Your task to perform on an android device: turn off location Image 0: 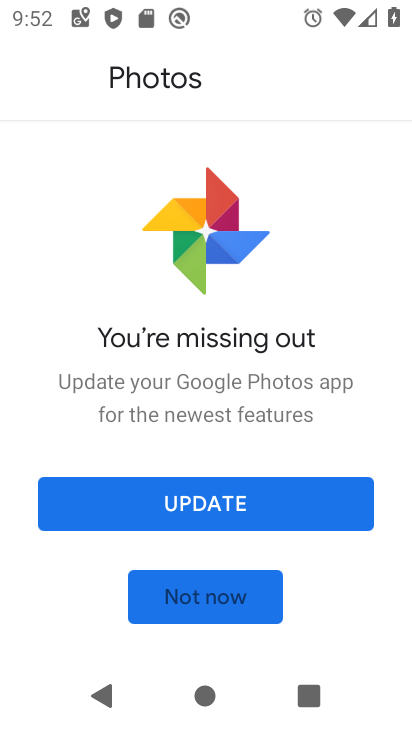
Step 0: press home button
Your task to perform on an android device: turn off location Image 1: 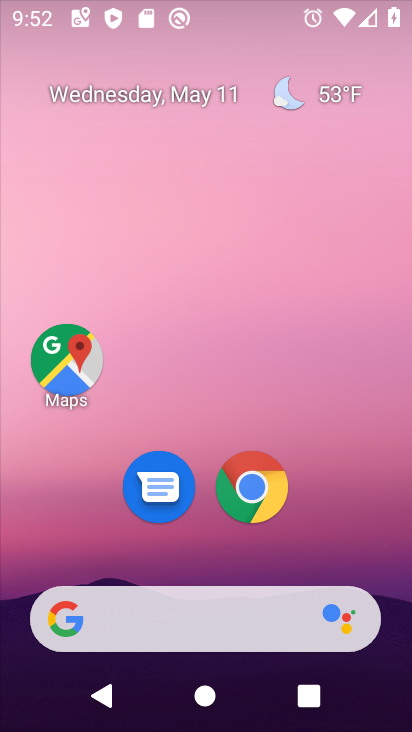
Step 1: drag from (202, 545) to (204, 202)
Your task to perform on an android device: turn off location Image 2: 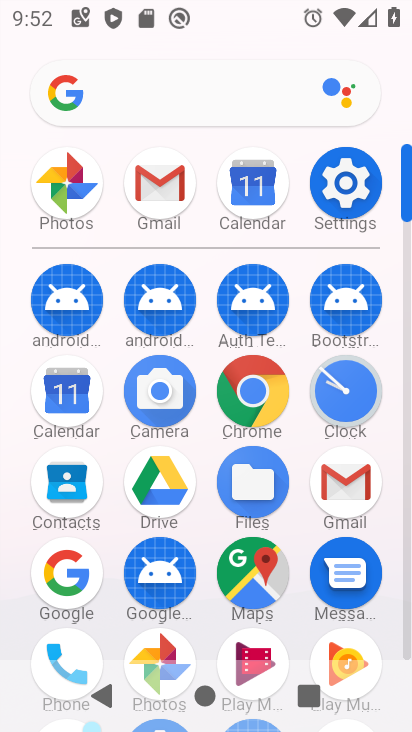
Step 2: click (329, 215)
Your task to perform on an android device: turn off location Image 3: 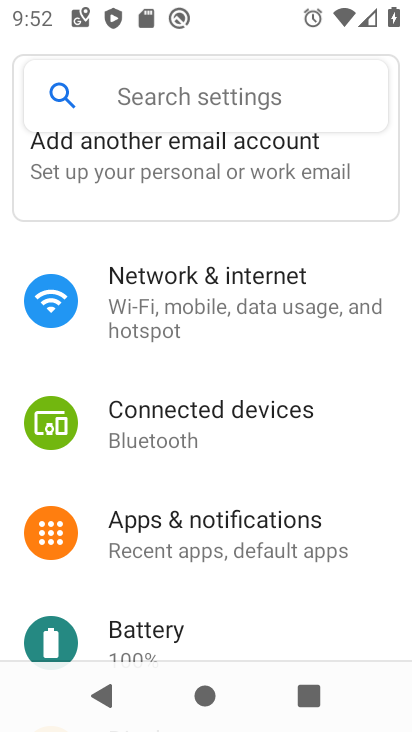
Step 3: drag from (228, 528) to (231, 283)
Your task to perform on an android device: turn off location Image 4: 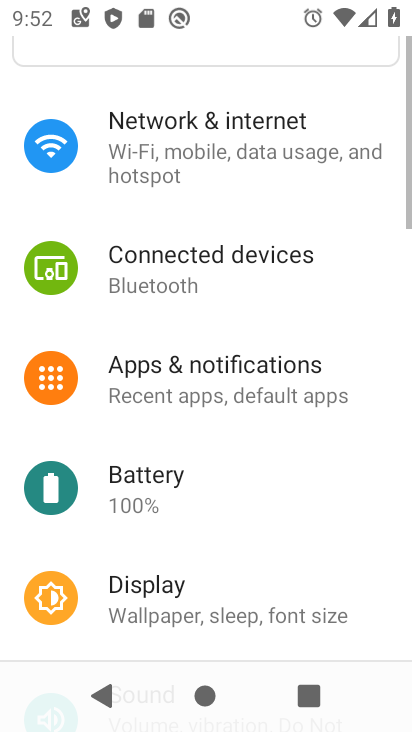
Step 4: drag from (182, 599) to (177, 307)
Your task to perform on an android device: turn off location Image 5: 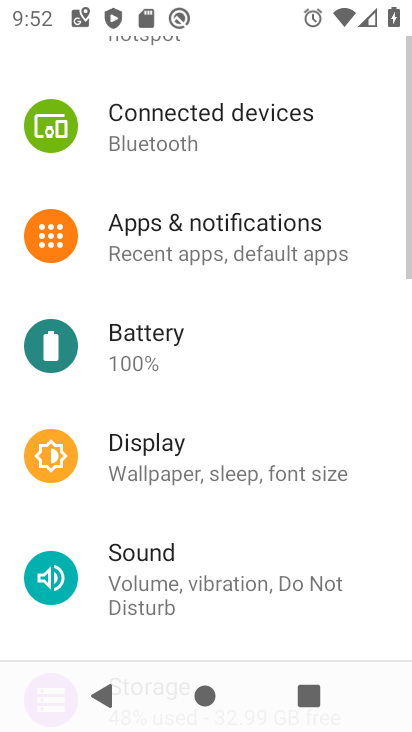
Step 5: drag from (217, 556) to (211, 302)
Your task to perform on an android device: turn off location Image 6: 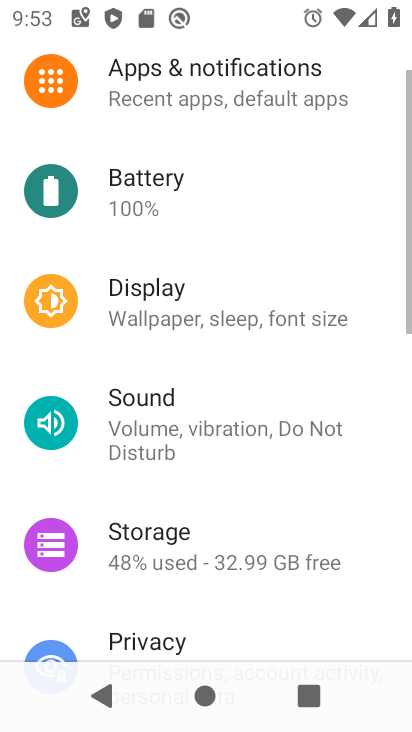
Step 6: drag from (210, 541) to (210, 288)
Your task to perform on an android device: turn off location Image 7: 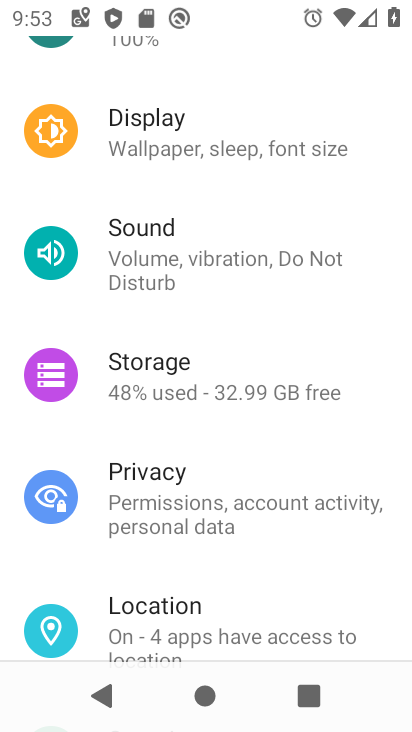
Step 7: click (251, 601)
Your task to perform on an android device: turn off location Image 8: 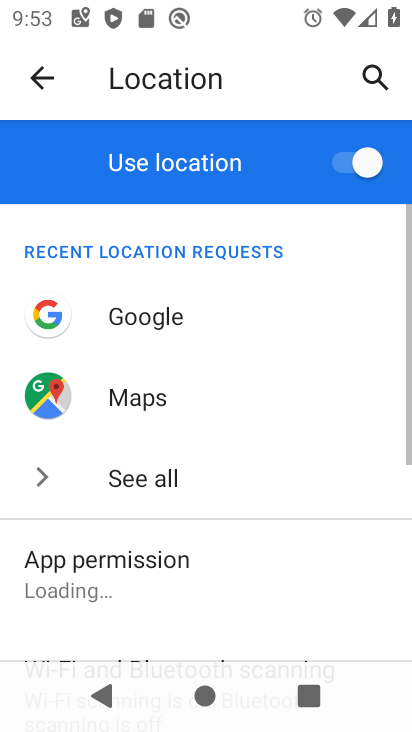
Step 8: click (329, 164)
Your task to perform on an android device: turn off location Image 9: 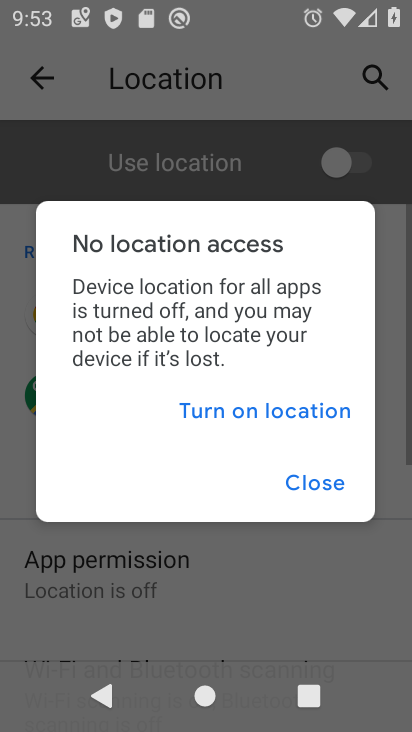
Step 9: task complete